Your task to perform on an android device: Go to location settings Image 0: 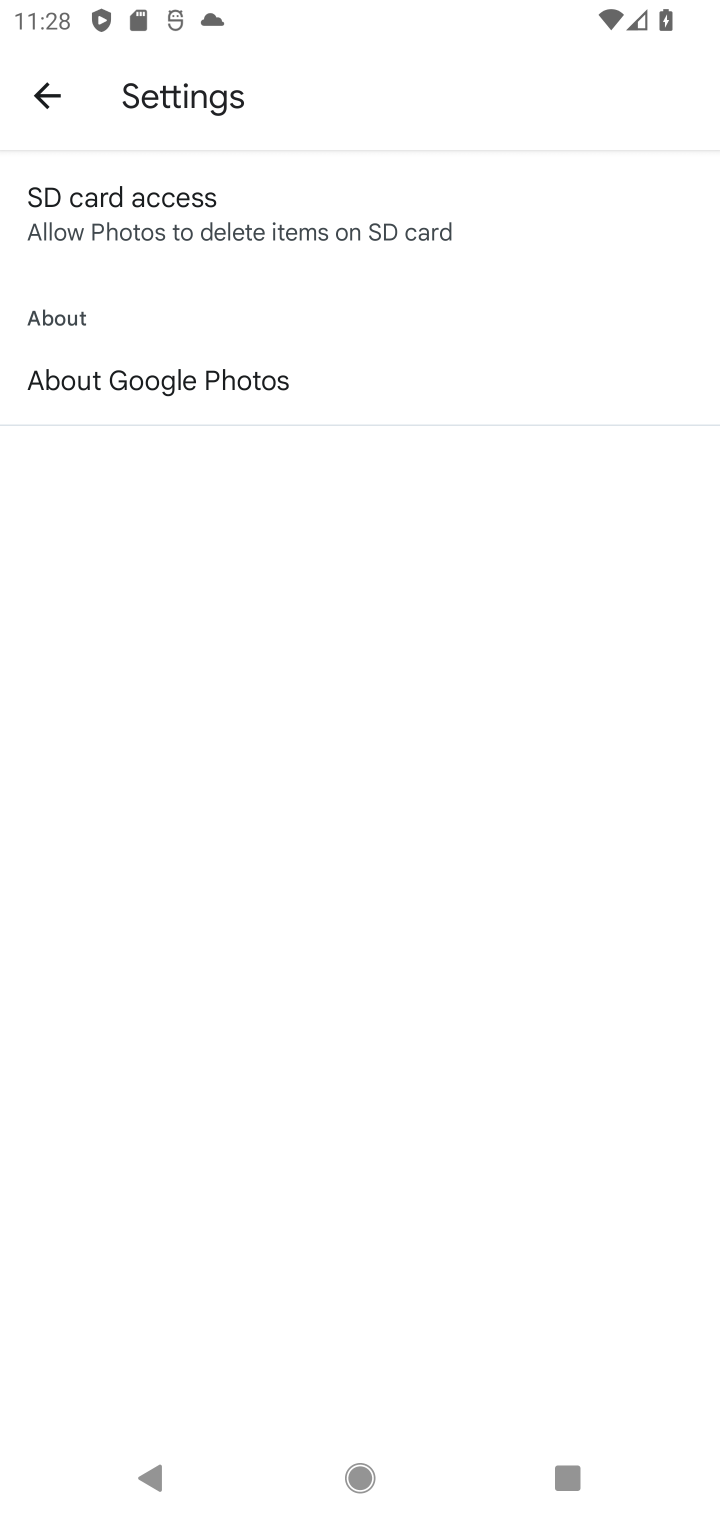
Step 0: press home button
Your task to perform on an android device: Go to location settings Image 1: 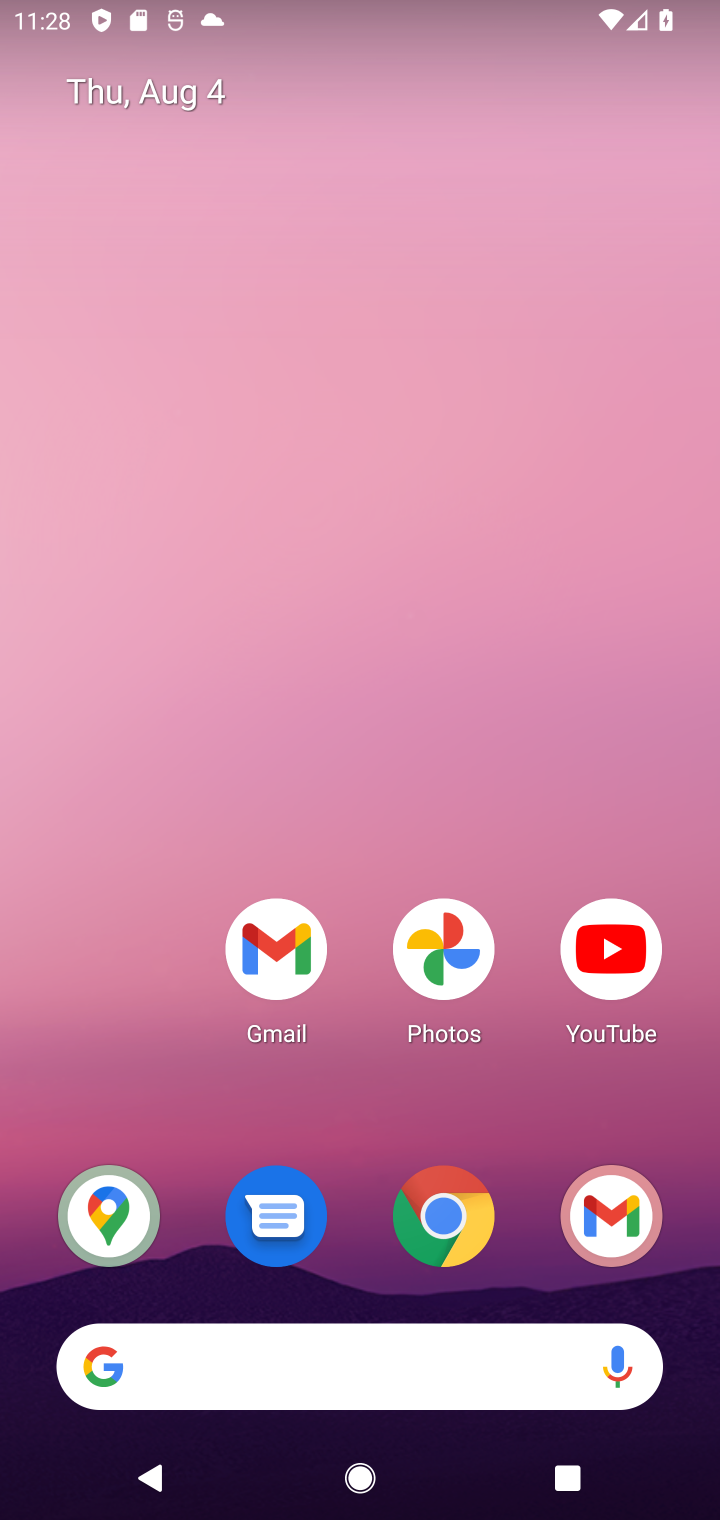
Step 1: drag from (360, 1378) to (464, 567)
Your task to perform on an android device: Go to location settings Image 2: 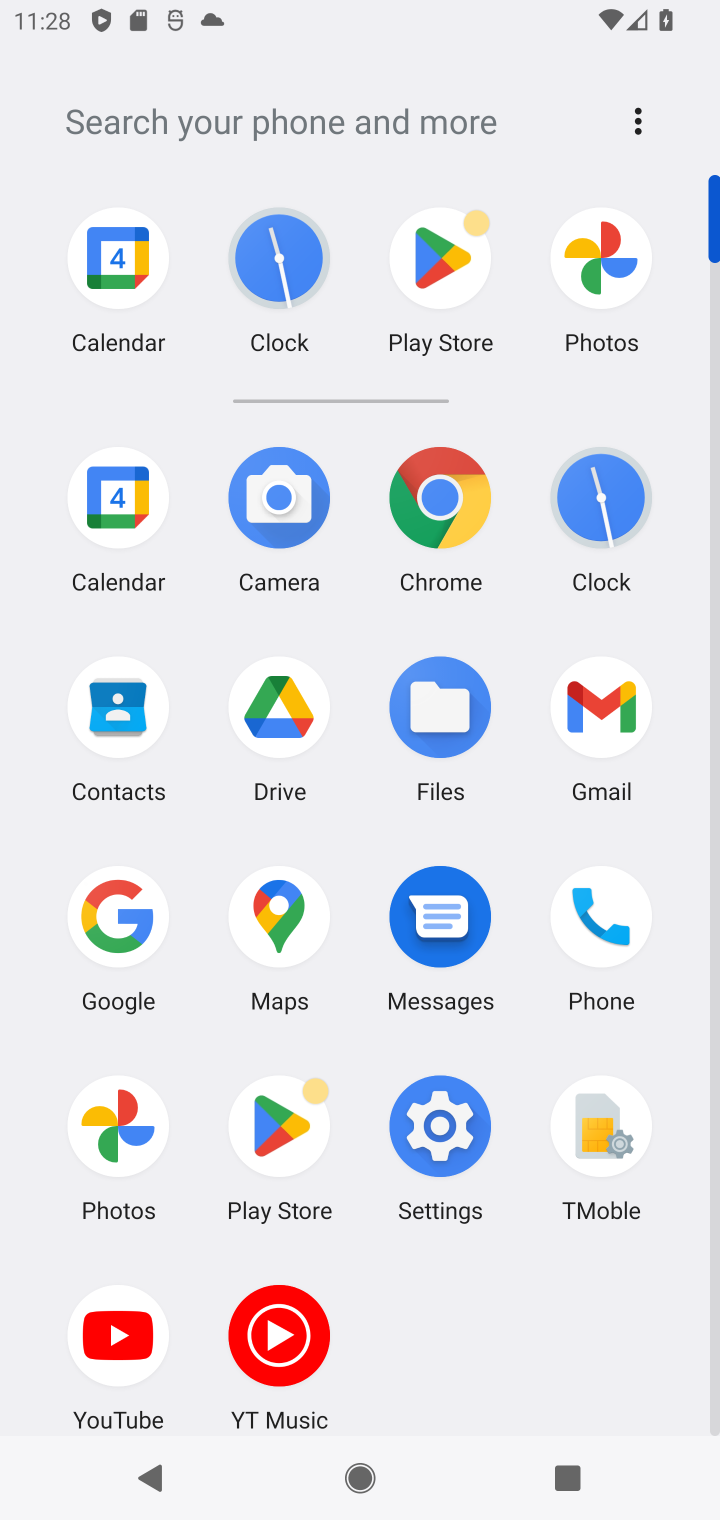
Step 2: click (438, 1128)
Your task to perform on an android device: Go to location settings Image 3: 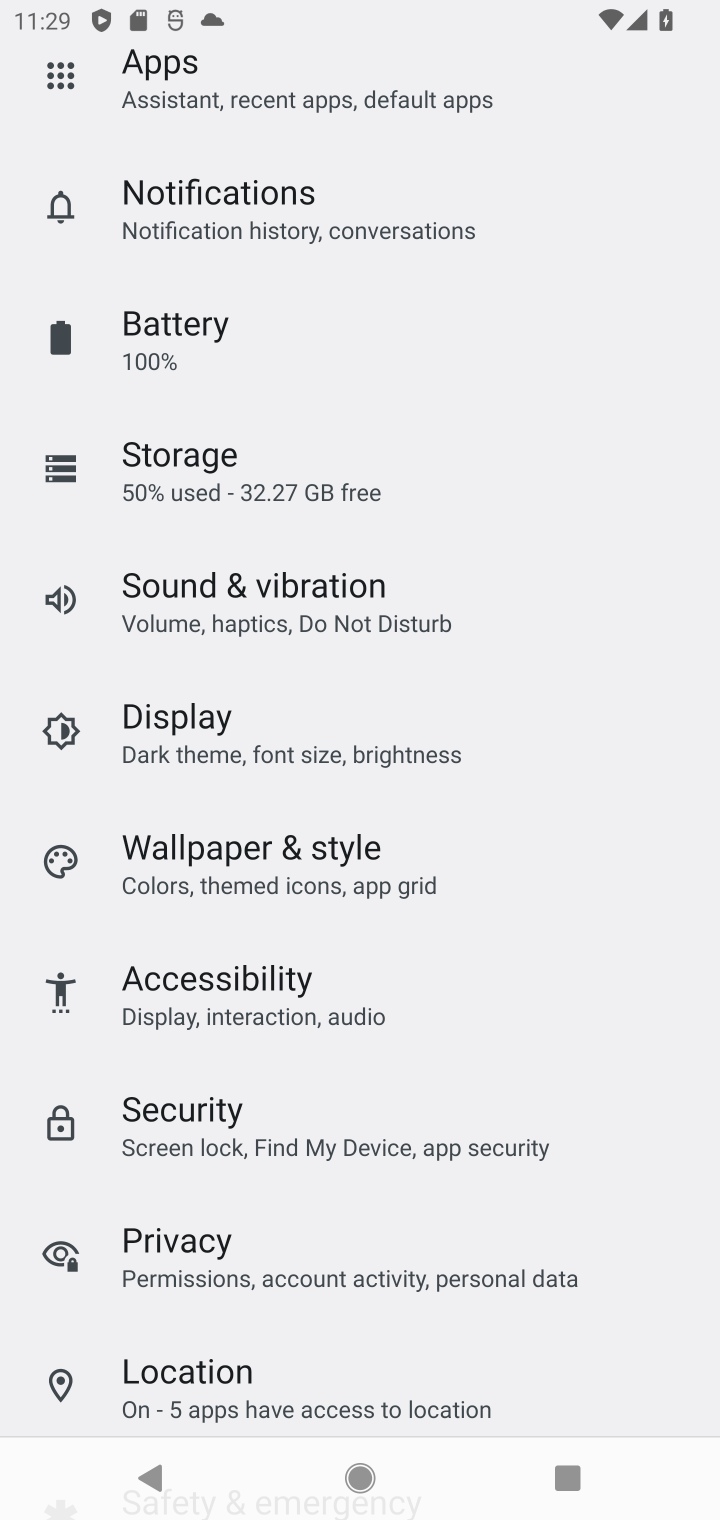
Step 3: click (213, 1395)
Your task to perform on an android device: Go to location settings Image 4: 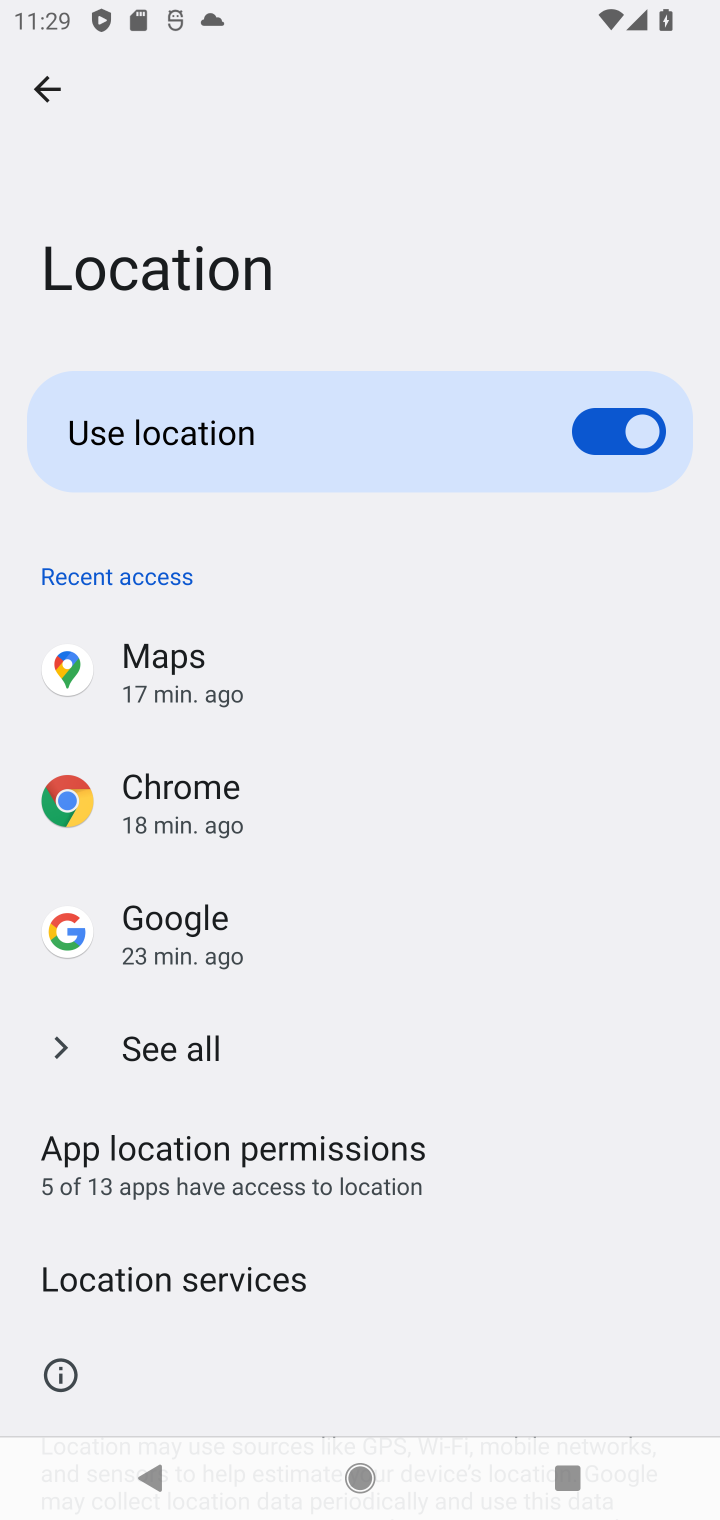
Step 4: task complete